Your task to perform on an android device: Open calendar and show me the third week of next month Image 0: 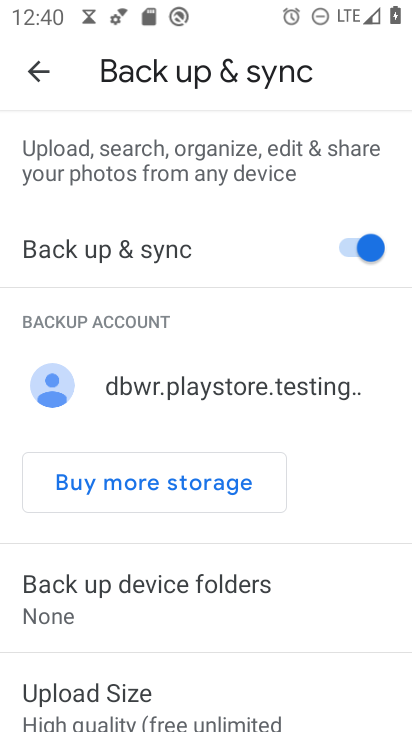
Step 0: press home button
Your task to perform on an android device: Open calendar and show me the third week of next month Image 1: 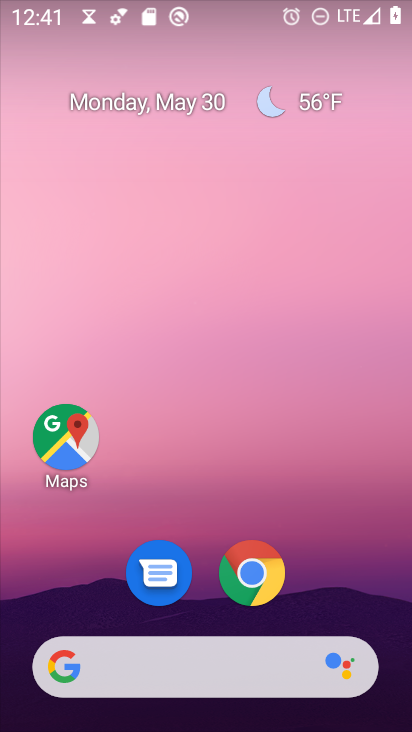
Step 1: drag from (130, 655) to (266, 53)
Your task to perform on an android device: Open calendar and show me the third week of next month Image 2: 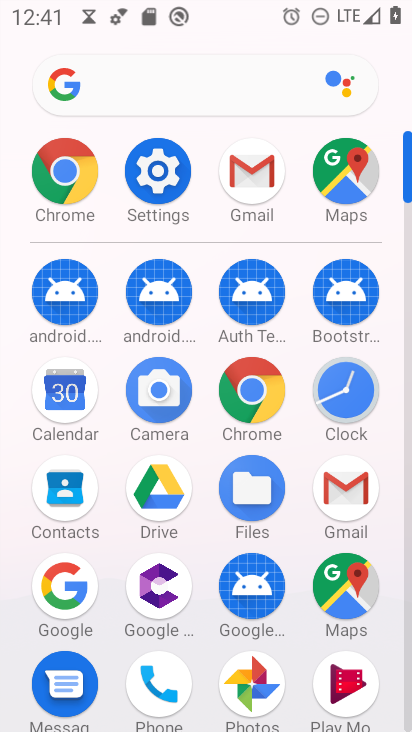
Step 2: click (74, 397)
Your task to perform on an android device: Open calendar and show me the third week of next month Image 3: 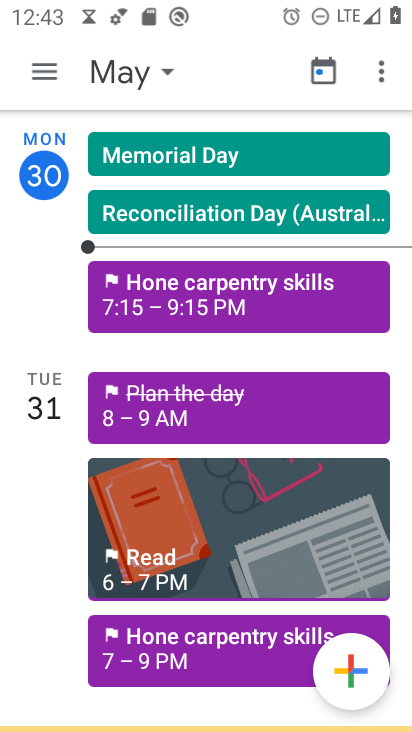
Step 3: click (179, 74)
Your task to perform on an android device: Open calendar and show me the third week of next month Image 4: 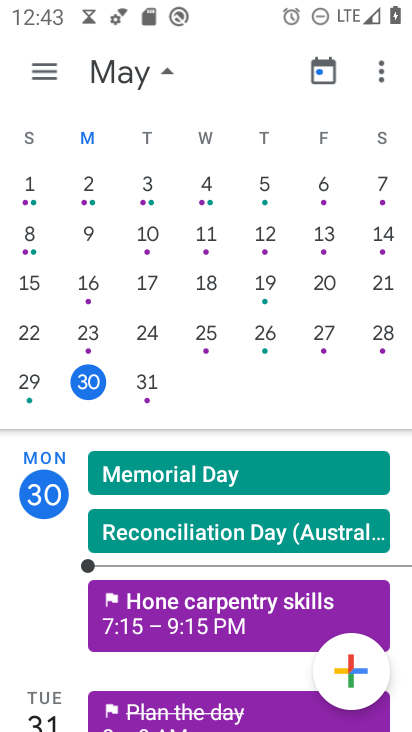
Step 4: click (268, 289)
Your task to perform on an android device: Open calendar and show me the third week of next month Image 5: 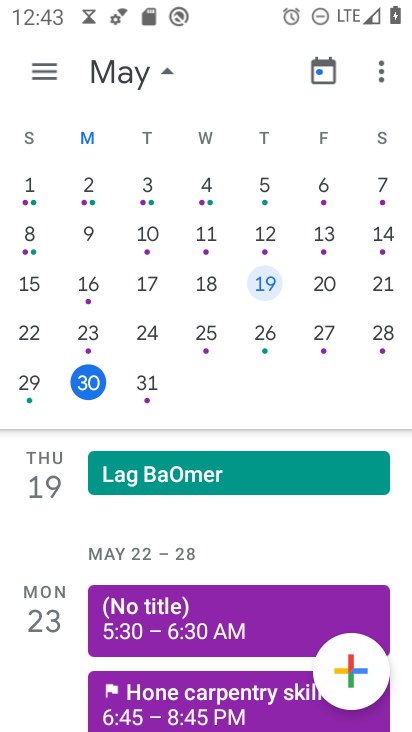
Step 5: task complete